Your task to perform on an android device: Go to notification settings Image 0: 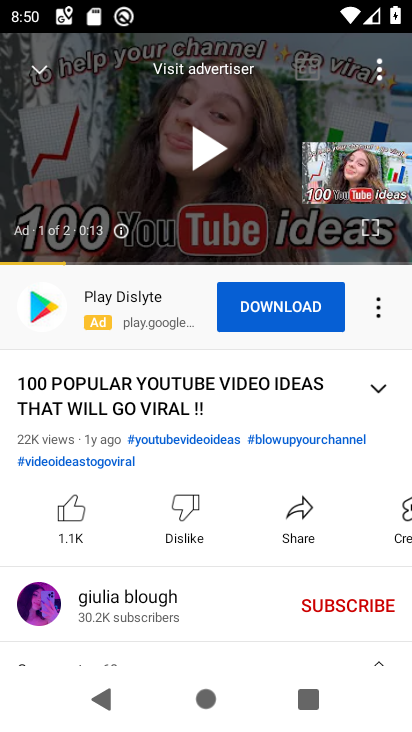
Step 0: press back button
Your task to perform on an android device: Go to notification settings Image 1: 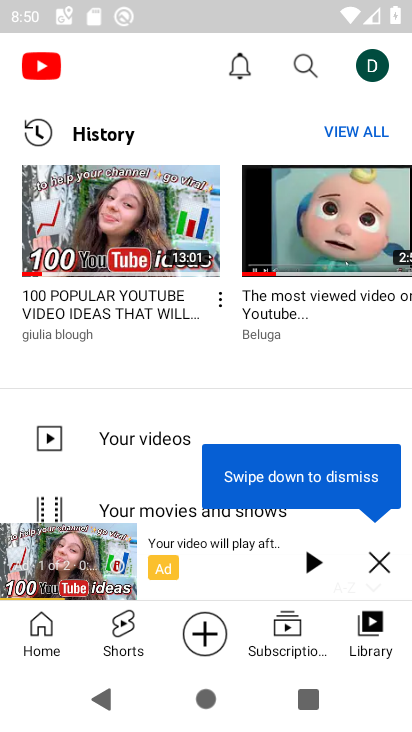
Step 1: press back button
Your task to perform on an android device: Go to notification settings Image 2: 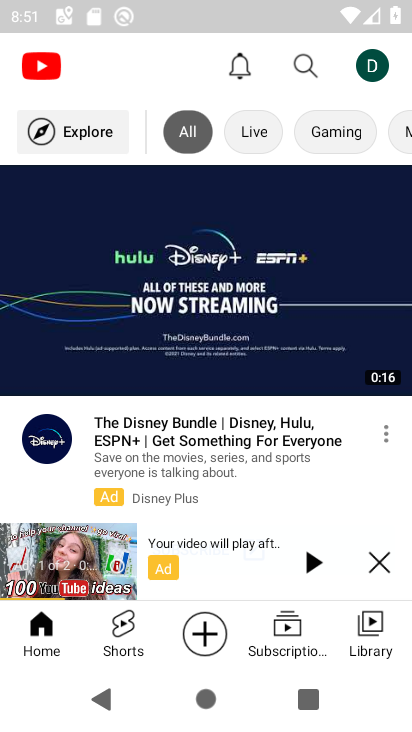
Step 2: press back button
Your task to perform on an android device: Go to notification settings Image 3: 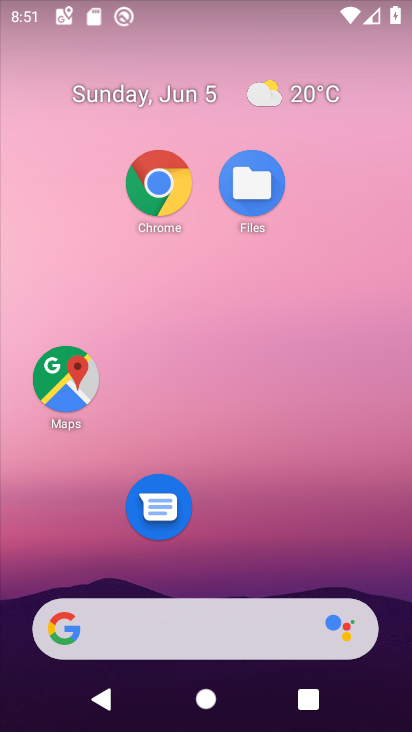
Step 3: drag from (227, 579) to (236, 9)
Your task to perform on an android device: Go to notification settings Image 4: 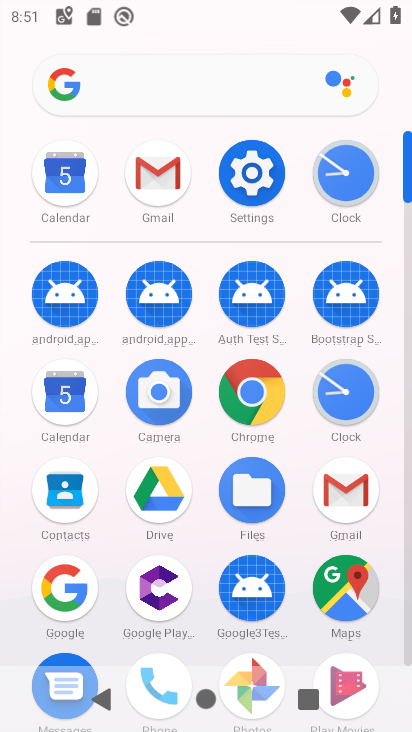
Step 4: click (246, 194)
Your task to perform on an android device: Go to notification settings Image 5: 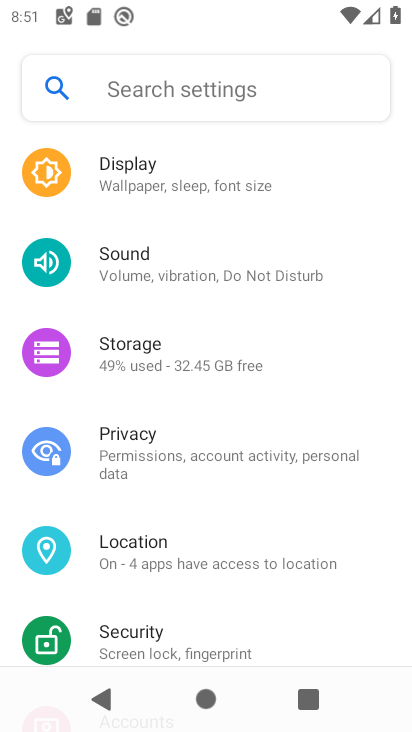
Step 5: drag from (246, 194) to (223, 501)
Your task to perform on an android device: Go to notification settings Image 6: 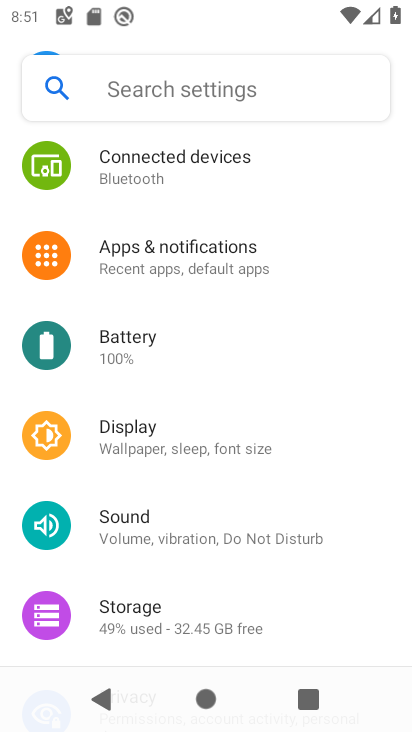
Step 6: click (174, 267)
Your task to perform on an android device: Go to notification settings Image 7: 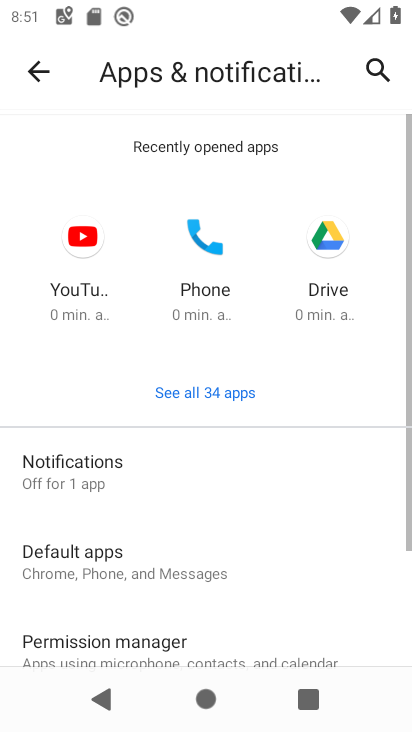
Step 7: click (100, 479)
Your task to perform on an android device: Go to notification settings Image 8: 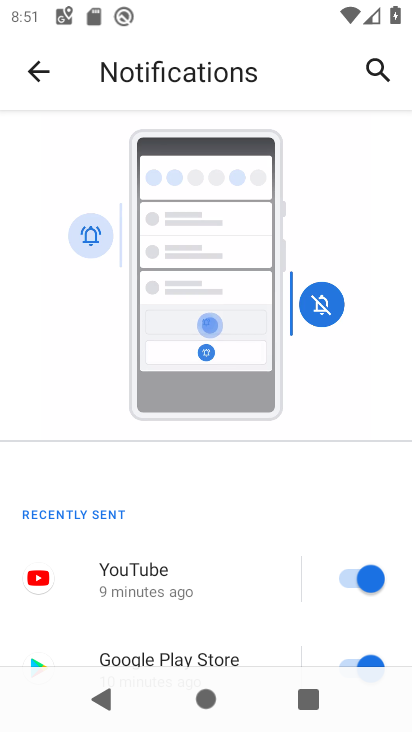
Step 8: drag from (154, 546) to (94, 29)
Your task to perform on an android device: Go to notification settings Image 9: 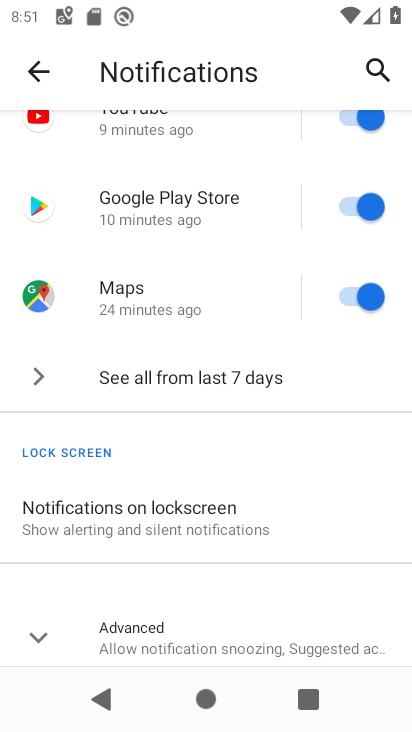
Step 9: click (178, 617)
Your task to perform on an android device: Go to notification settings Image 10: 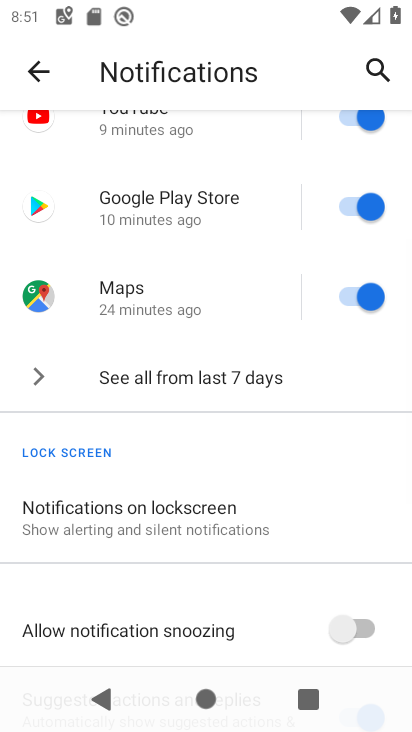
Step 10: task complete